Your task to perform on an android device: Open Google Chrome Image 0: 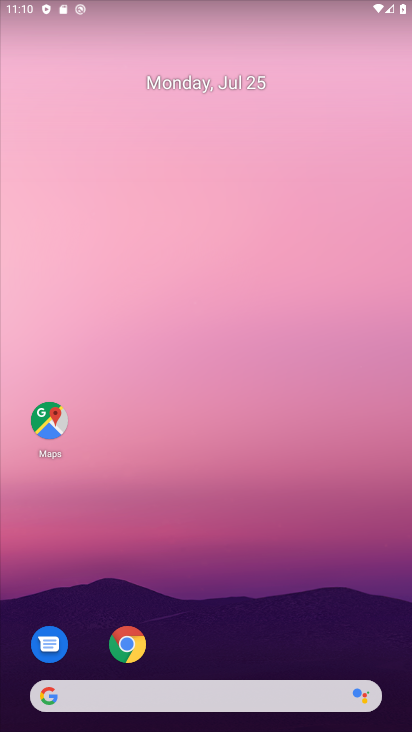
Step 0: drag from (203, 703) to (264, 127)
Your task to perform on an android device: Open Google Chrome Image 1: 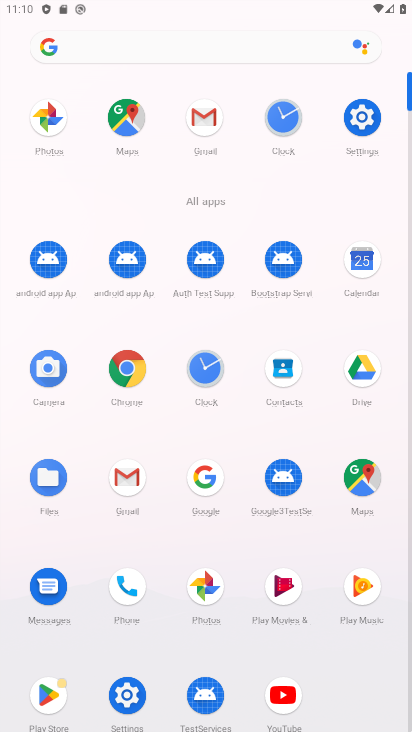
Step 1: click (208, 475)
Your task to perform on an android device: Open Google Chrome Image 2: 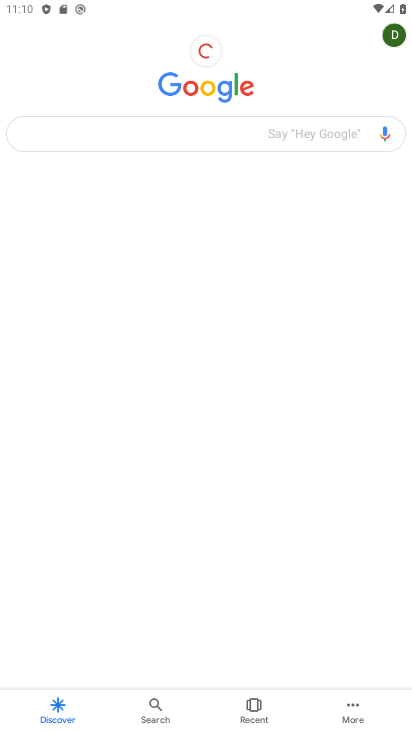
Step 2: task complete